Your task to perform on an android device: uninstall "Microsoft Excel" Image 0: 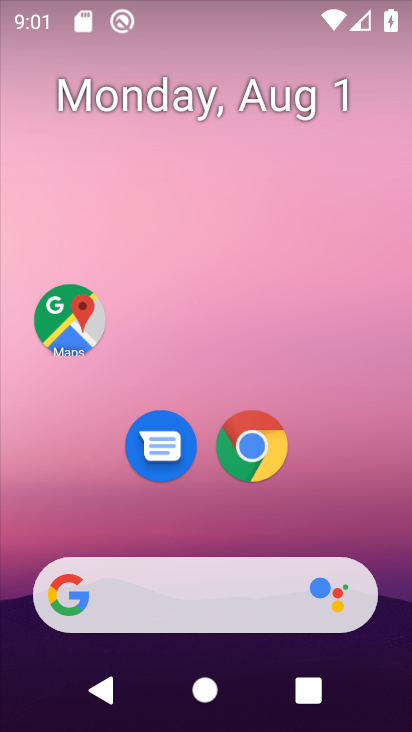
Step 0: drag from (199, 529) to (170, 108)
Your task to perform on an android device: uninstall "Microsoft Excel" Image 1: 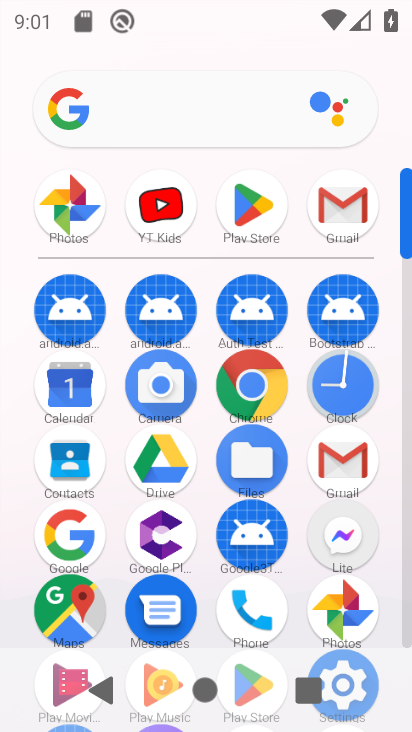
Step 1: click (236, 195)
Your task to perform on an android device: uninstall "Microsoft Excel" Image 2: 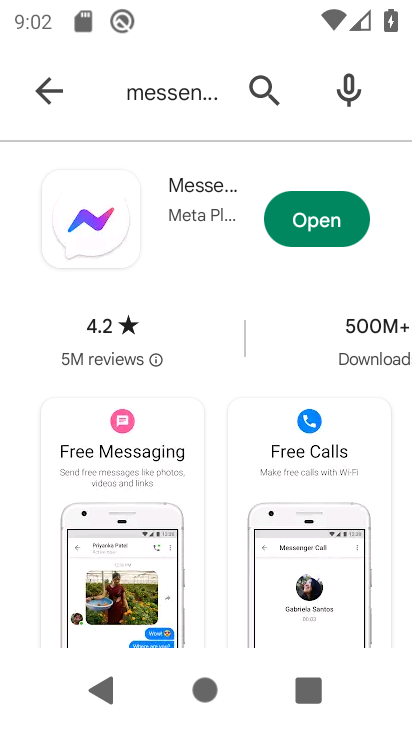
Step 2: click (263, 89)
Your task to perform on an android device: uninstall "Microsoft Excel" Image 3: 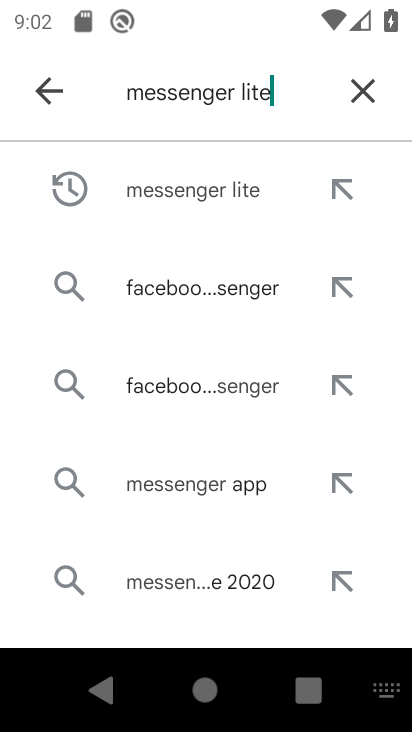
Step 3: click (370, 91)
Your task to perform on an android device: uninstall "Microsoft Excel" Image 4: 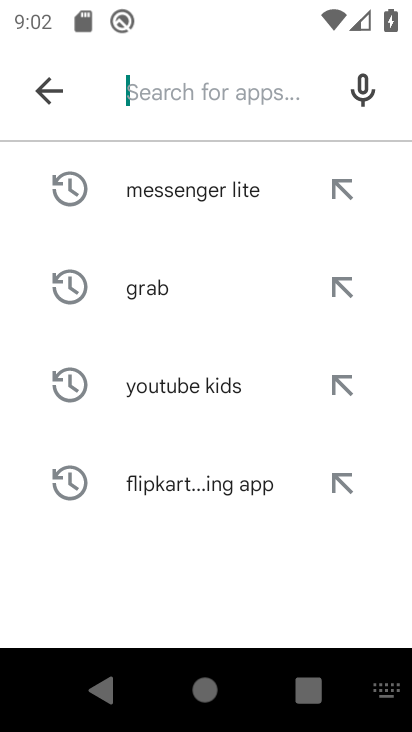
Step 4: click (209, 80)
Your task to perform on an android device: uninstall "Microsoft Excel" Image 5: 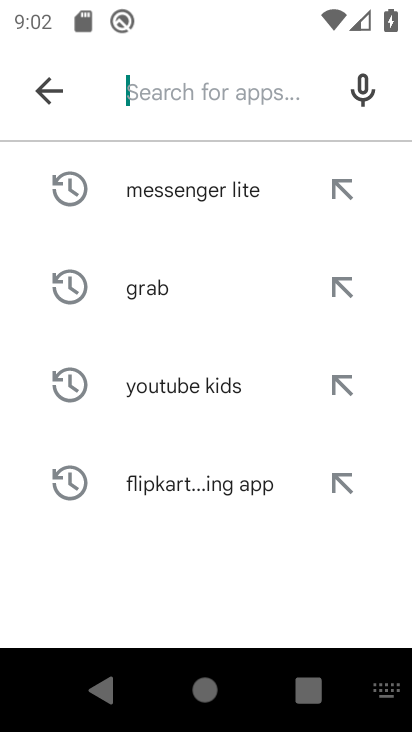
Step 5: type "Microsoft Excel"
Your task to perform on an android device: uninstall "Microsoft Excel" Image 6: 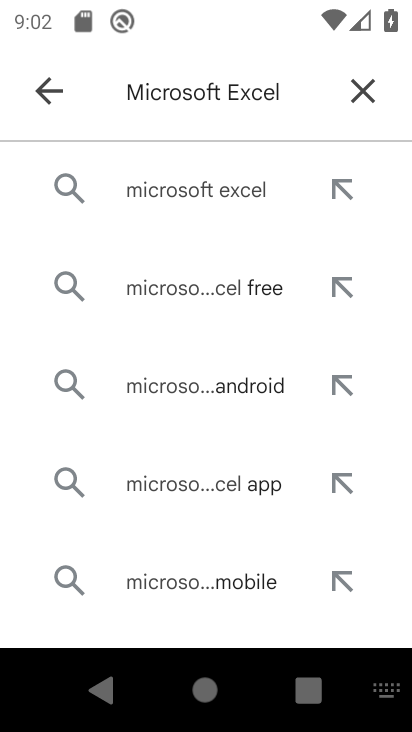
Step 6: click (240, 180)
Your task to perform on an android device: uninstall "Microsoft Excel" Image 7: 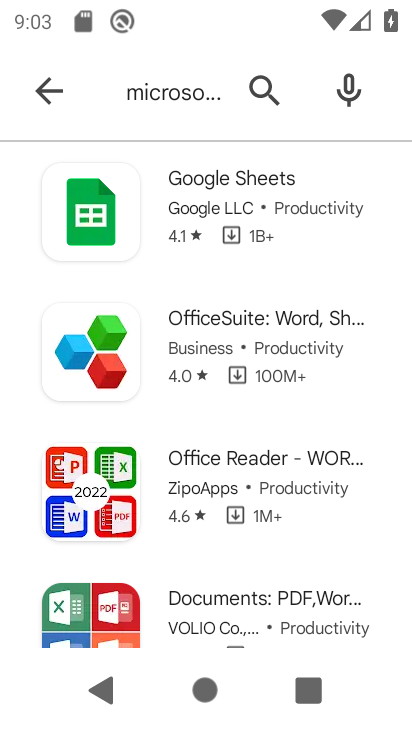
Step 7: task complete